Your task to perform on an android device: visit the assistant section in the google photos Image 0: 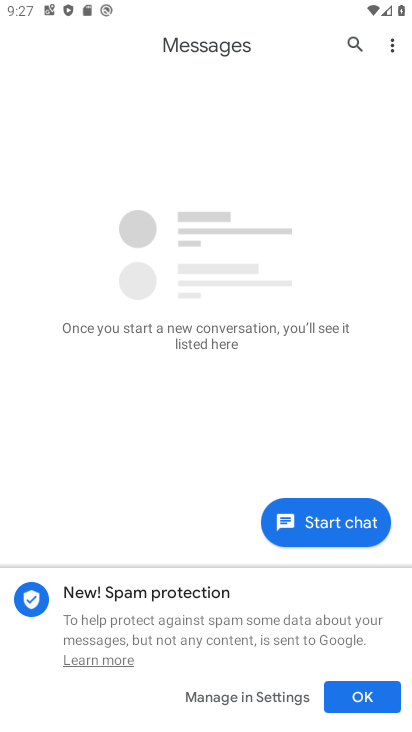
Step 0: press home button
Your task to perform on an android device: visit the assistant section in the google photos Image 1: 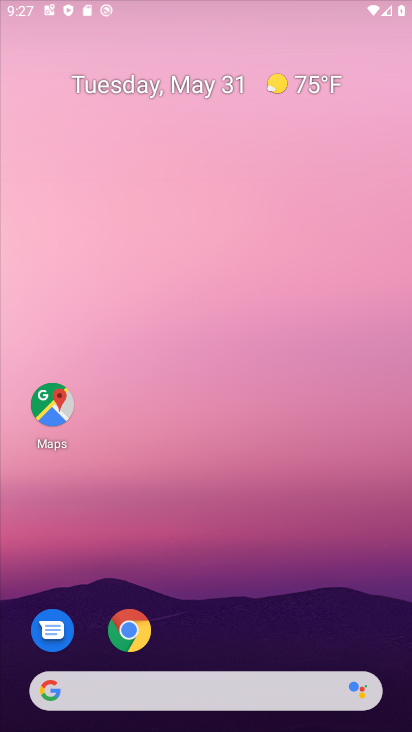
Step 1: drag from (197, 641) to (274, 99)
Your task to perform on an android device: visit the assistant section in the google photos Image 2: 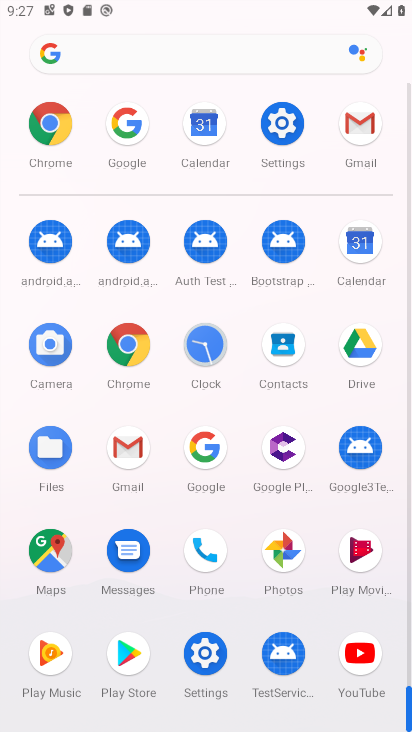
Step 2: click (288, 550)
Your task to perform on an android device: visit the assistant section in the google photos Image 3: 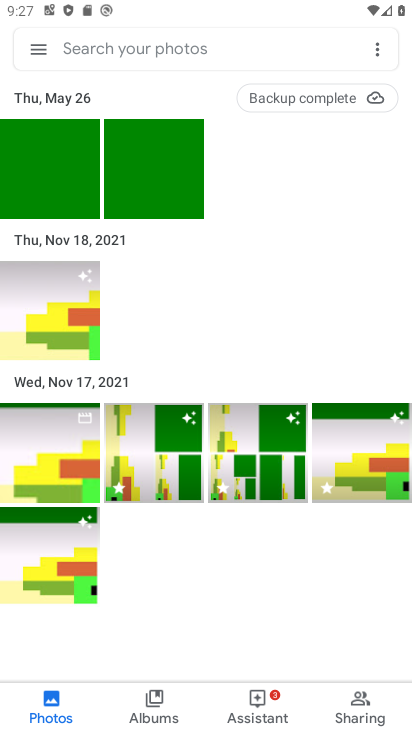
Step 3: click (246, 704)
Your task to perform on an android device: visit the assistant section in the google photos Image 4: 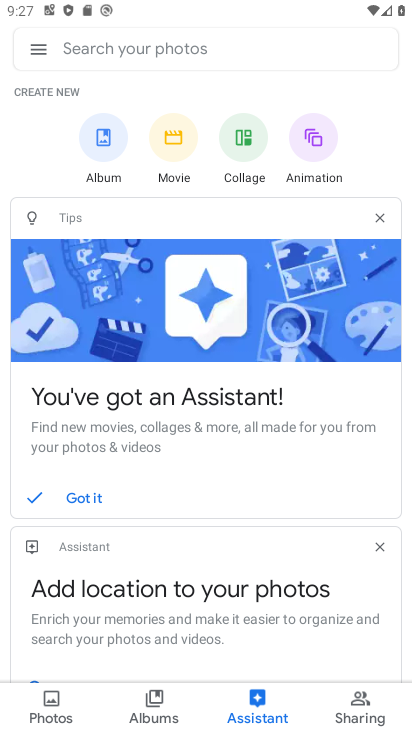
Step 4: task complete